Your task to perform on an android device: all mails in gmail Image 0: 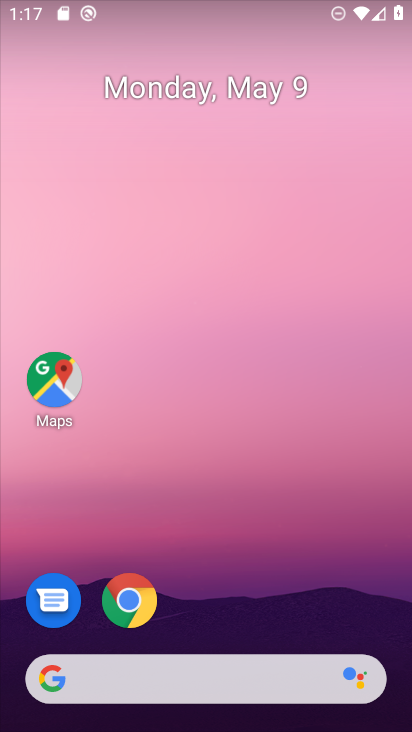
Step 0: press home button
Your task to perform on an android device: all mails in gmail Image 1: 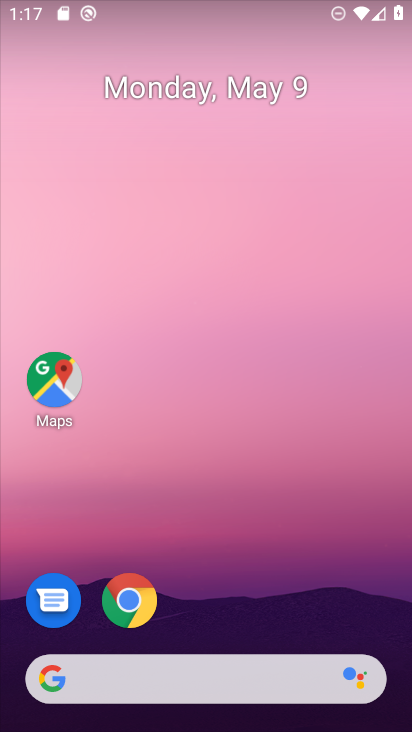
Step 1: drag from (138, 680) to (237, 61)
Your task to perform on an android device: all mails in gmail Image 2: 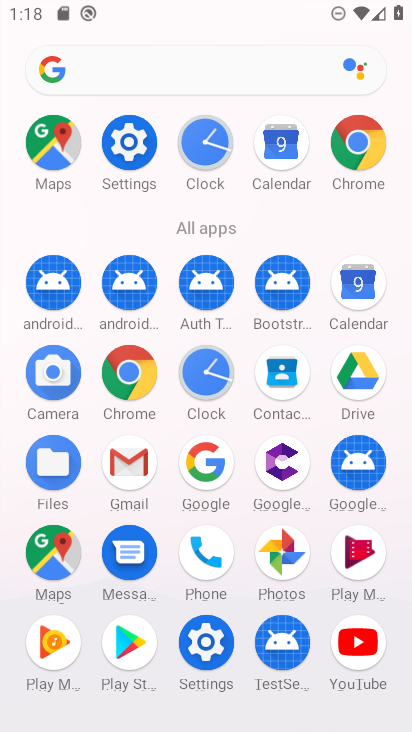
Step 2: click (133, 469)
Your task to perform on an android device: all mails in gmail Image 3: 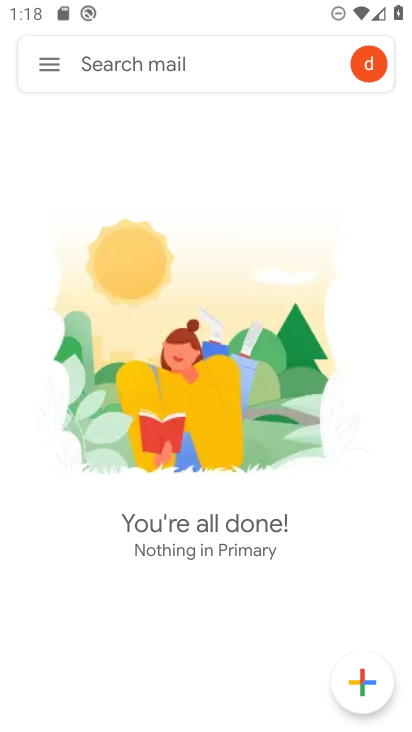
Step 3: click (51, 69)
Your task to perform on an android device: all mails in gmail Image 4: 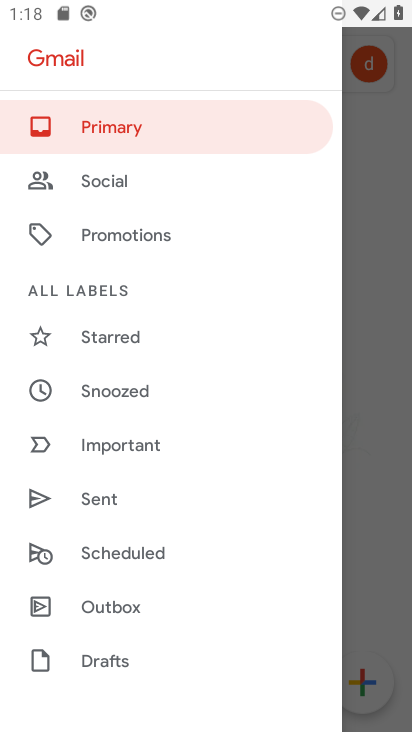
Step 4: drag from (161, 625) to (230, 221)
Your task to perform on an android device: all mails in gmail Image 5: 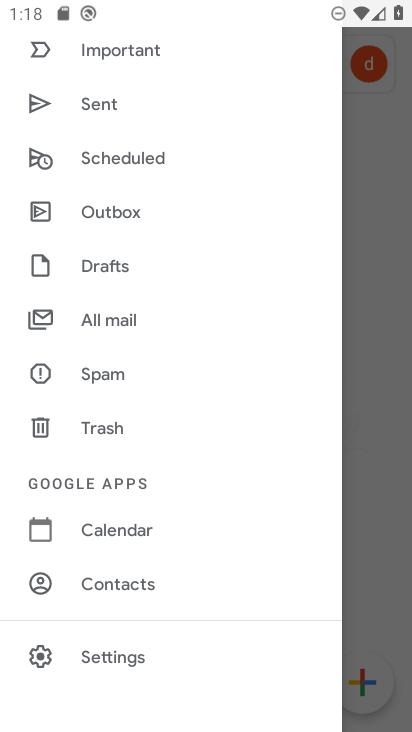
Step 5: click (121, 317)
Your task to perform on an android device: all mails in gmail Image 6: 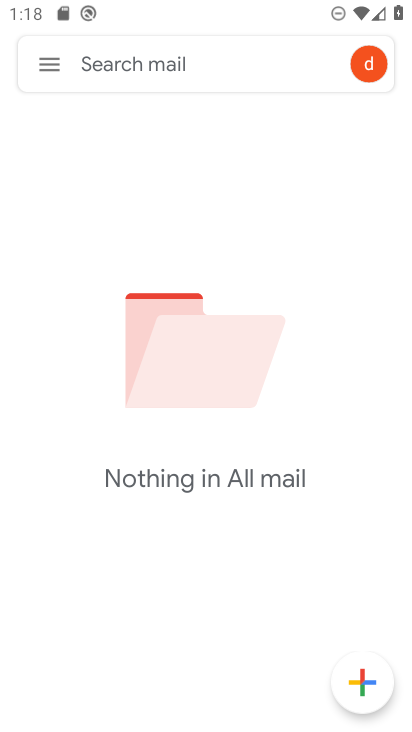
Step 6: task complete